Your task to perform on an android device: turn on the 12-hour format for clock Image 0: 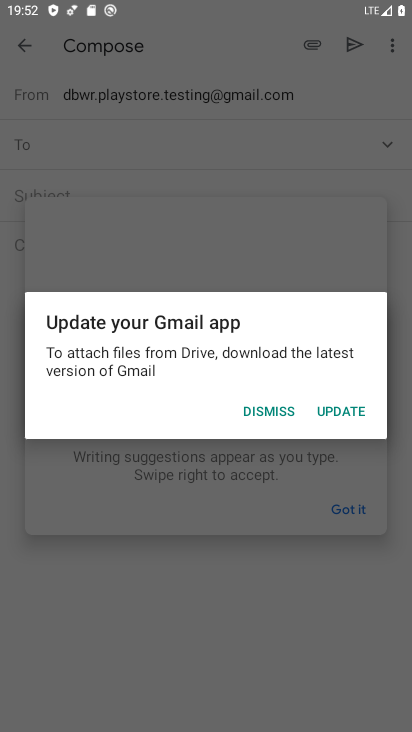
Step 0: press home button
Your task to perform on an android device: turn on the 12-hour format for clock Image 1: 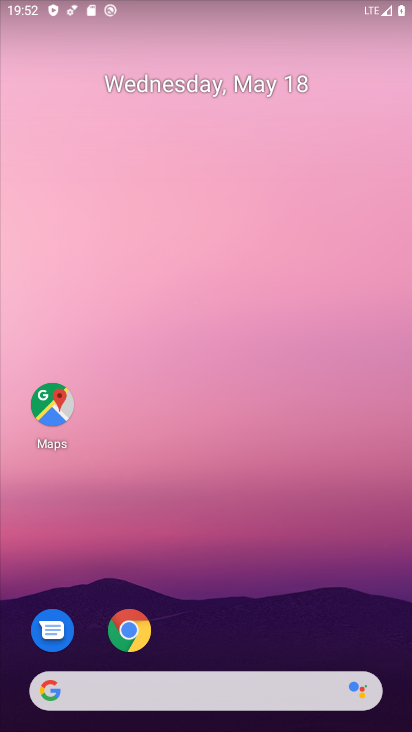
Step 1: drag from (263, 505) to (335, 111)
Your task to perform on an android device: turn on the 12-hour format for clock Image 2: 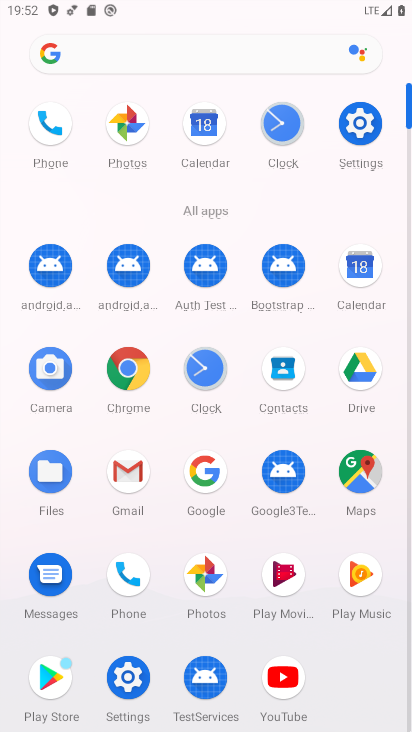
Step 2: click (285, 127)
Your task to perform on an android device: turn on the 12-hour format for clock Image 3: 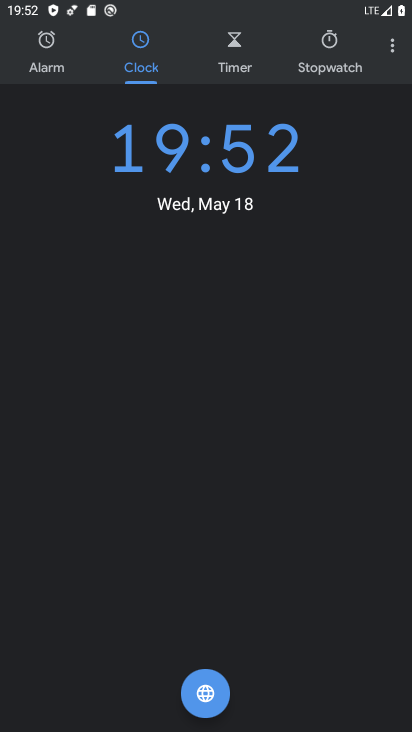
Step 3: click (394, 45)
Your task to perform on an android device: turn on the 12-hour format for clock Image 4: 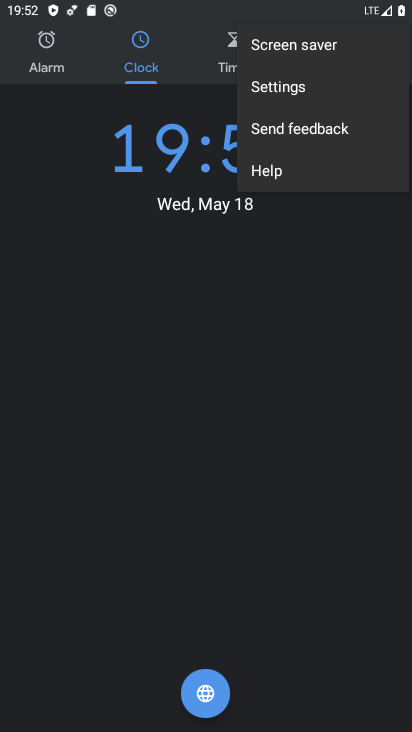
Step 4: click (293, 94)
Your task to perform on an android device: turn on the 12-hour format for clock Image 5: 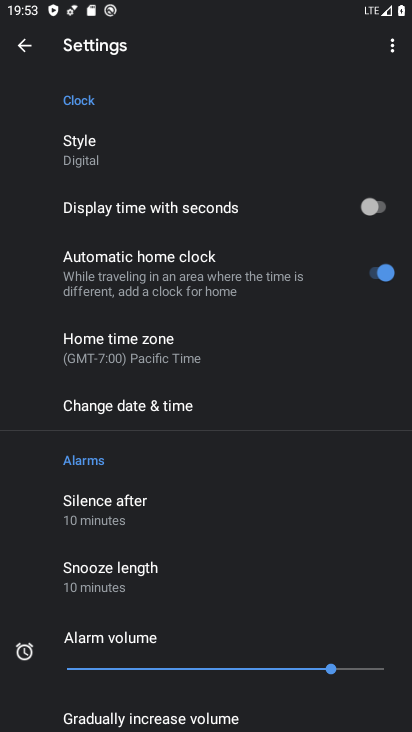
Step 5: click (172, 410)
Your task to perform on an android device: turn on the 12-hour format for clock Image 6: 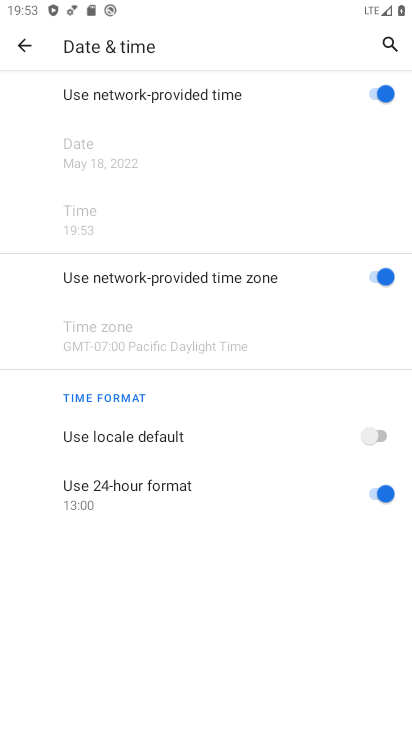
Step 6: click (371, 496)
Your task to perform on an android device: turn on the 12-hour format for clock Image 7: 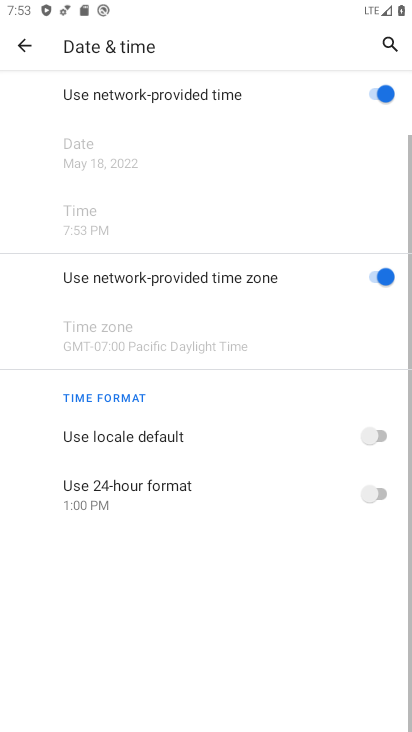
Step 7: click (382, 435)
Your task to perform on an android device: turn on the 12-hour format for clock Image 8: 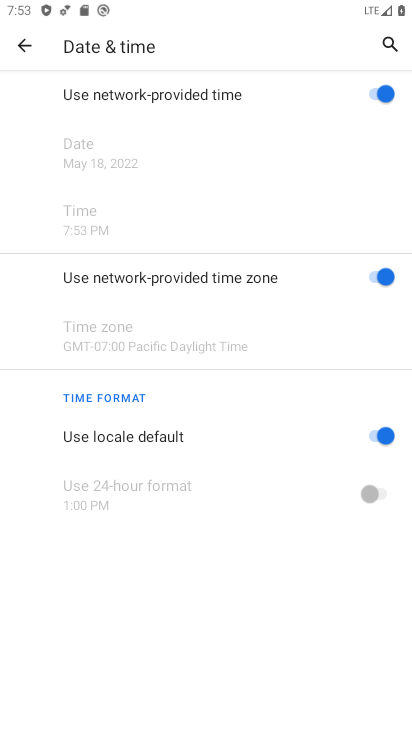
Step 8: task complete